Your task to perform on an android device: move an email to a new category in the gmail app Image 0: 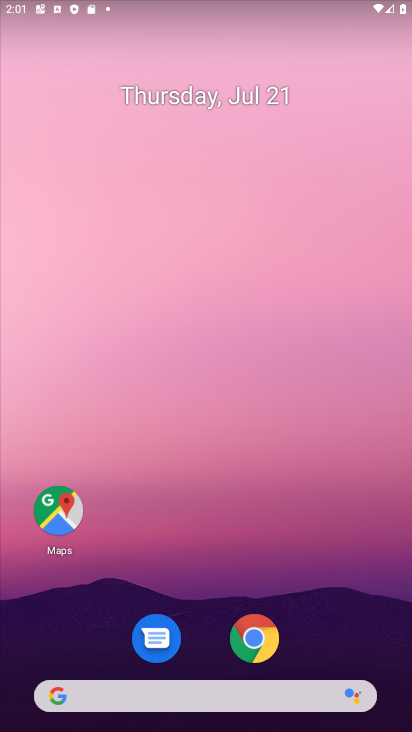
Step 0: drag from (216, 723) to (269, 61)
Your task to perform on an android device: move an email to a new category in the gmail app Image 1: 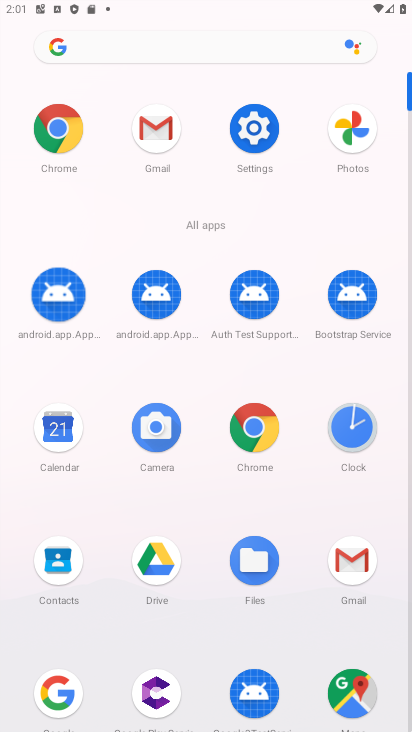
Step 1: click (161, 123)
Your task to perform on an android device: move an email to a new category in the gmail app Image 2: 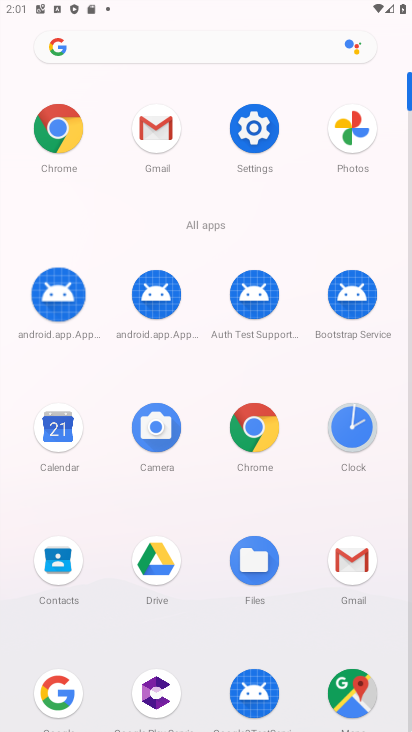
Step 2: click (161, 123)
Your task to perform on an android device: move an email to a new category in the gmail app Image 3: 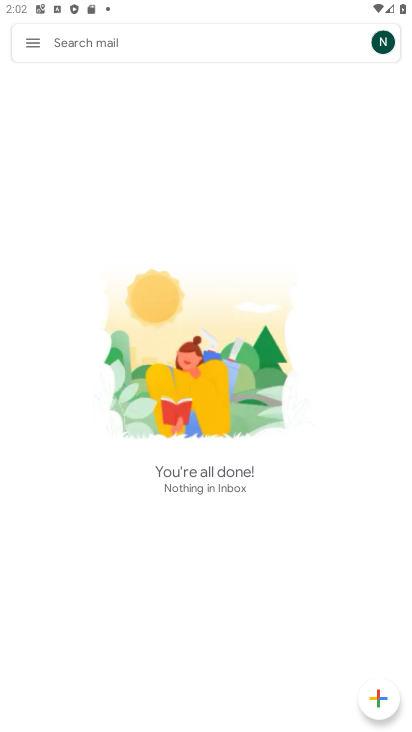
Step 3: task complete